Your task to perform on an android device: toggle translation in the chrome app Image 0: 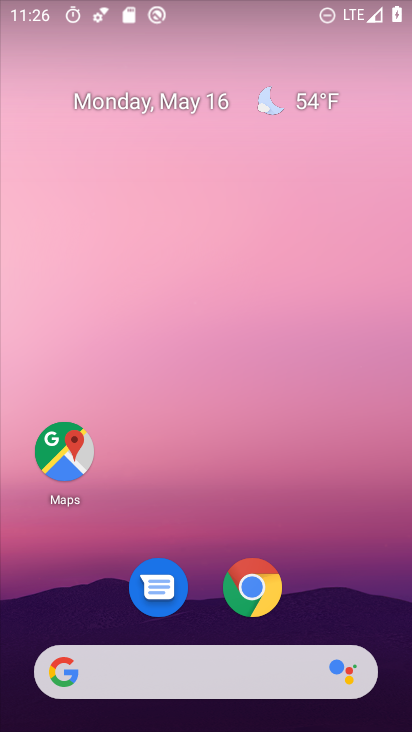
Step 0: drag from (211, 598) to (213, 211)
Your task to perform on an android device: toggle translation in the chrome app Image 1: 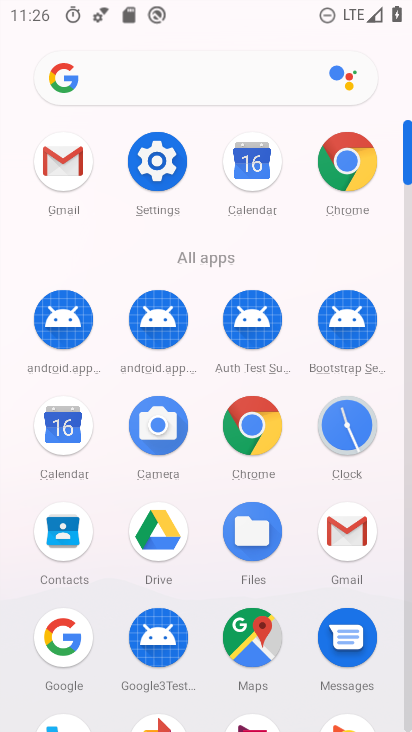
Step 1: click (241, 416)
Your task to perform on an android device: toggle translation in the chrome app Image 2: 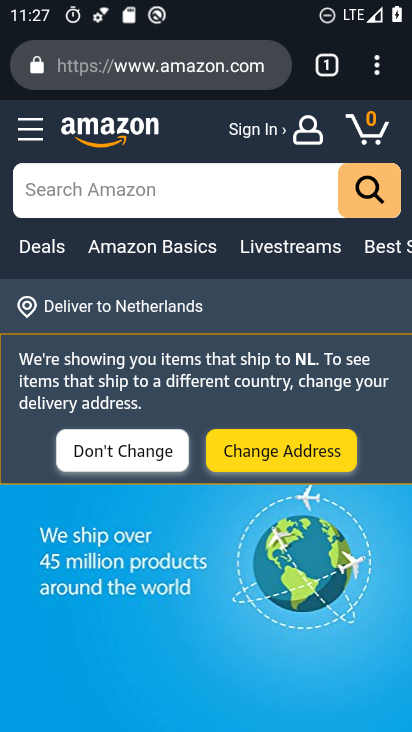
Step 2: drag from (211, 644) to (221, 410)
Your task to perform on an android device: toggle translation in the chrome app Image 3: 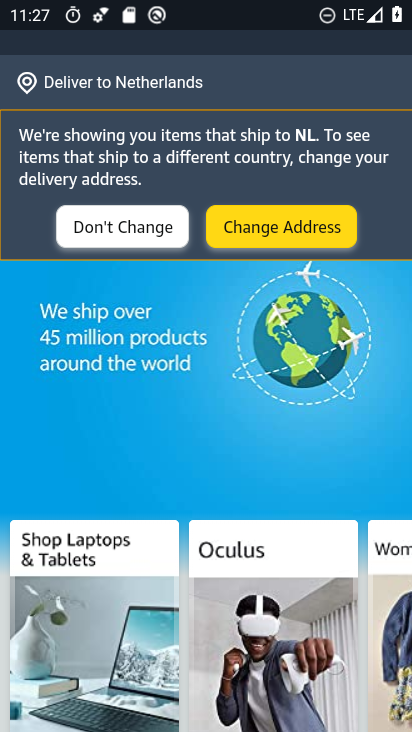
Step 3: drag from (205, 156) to (253, 545)
Your task to perform on an android device: toggle translation in the chrome app Image 4: 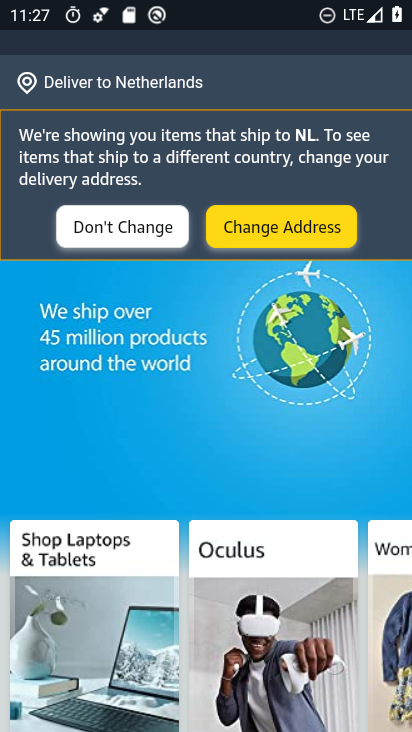
Step 4: drag from (201, 285) to (302, 728)
Your task to perform on an android device: toggle translation in the chrome app Image 5: 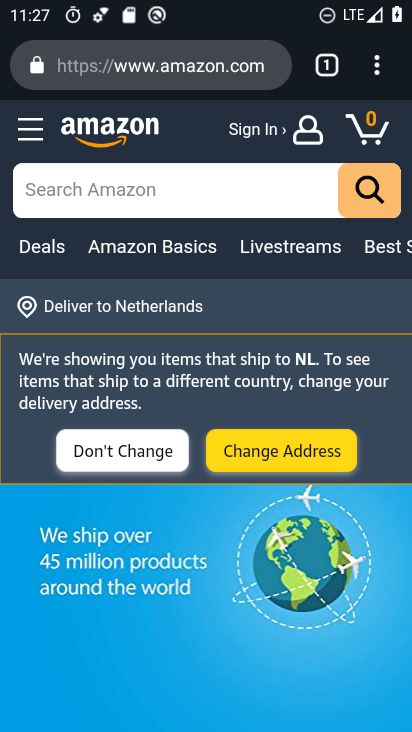
Step 5: drag from (210, 309) to (279, 648)
Your task to perform on an android device: toggle translation in the chrome app Image 6: 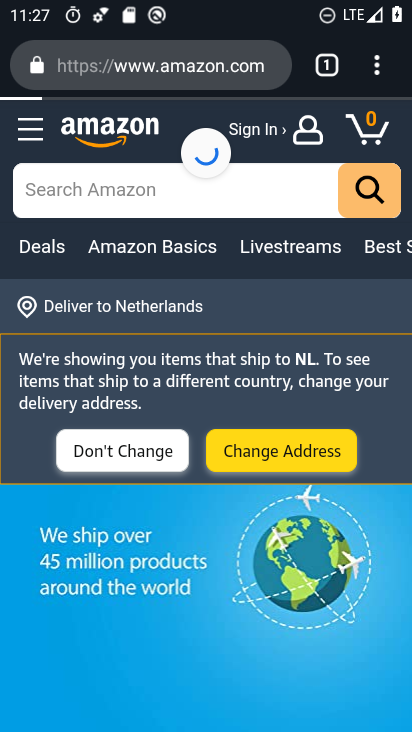
Step 6: drag from (233, 642) to (257, 171)
Your task to perform on an android device: toggle translation in the chrome app Image 7: 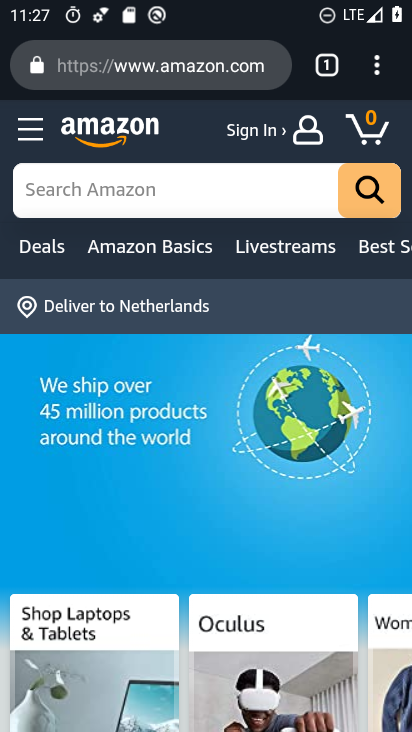
Step 7: drag from (220, 234) to (231, 524)
Your task to perform on an android device: toggle translation in the chrome app Image 8: 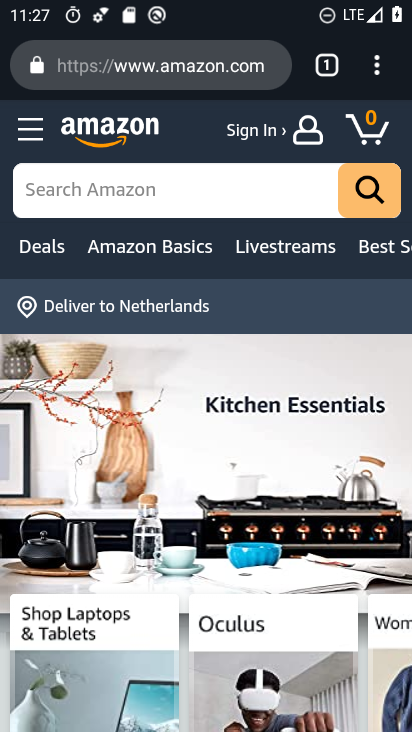
Step 8: click (374, 61)
Your task to perform on an android device: toggle translation in the chrome app Image 9: 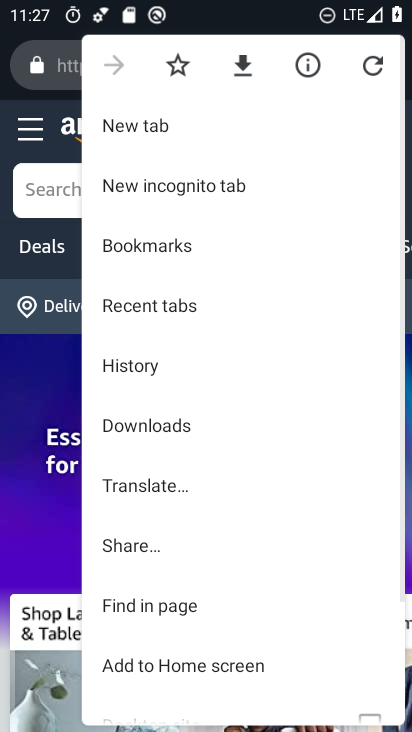
Step 9: drag from (191, 510) to (227, 38)
Your task to perform on an android device: toggle translation in the chrome app Image 10: 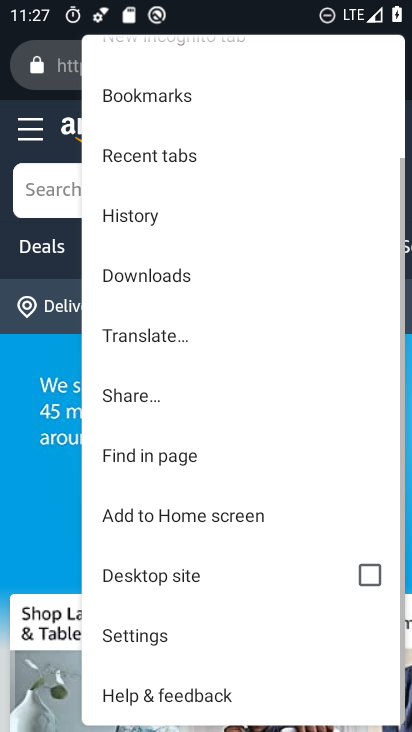
Step 10: click (155, 626)
Your task to perform on an android device: toggle translation in the chrome app Image 11: 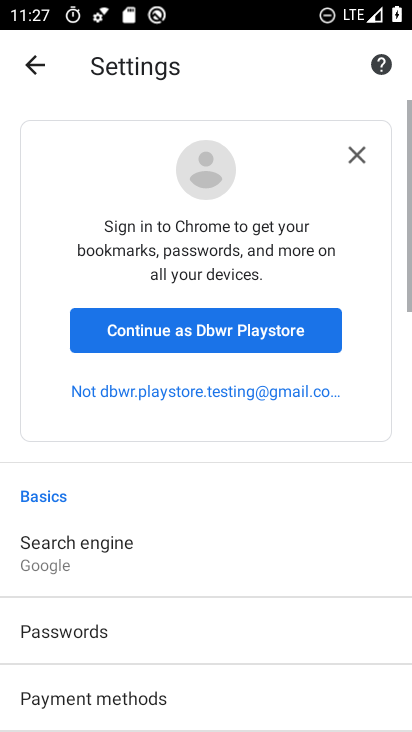
Step 11: drag from (193, 564) to (262, 150)
Your task to perform on an android device: toggle translation in the chrome app Image 12: 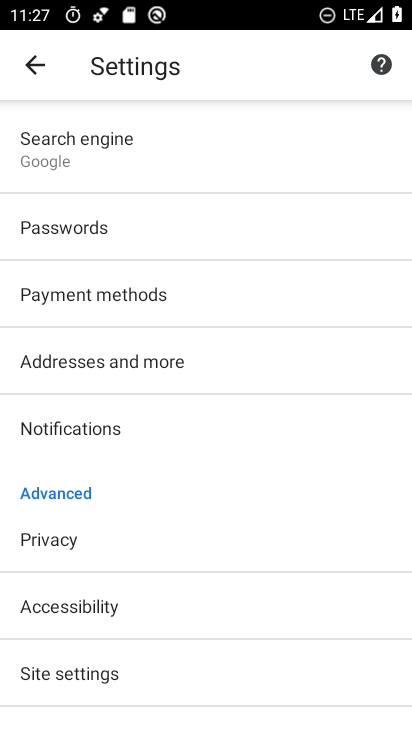
Step 12: drag from (190, 636) to (232, 241)
Your task to perform on an android device: toggle translation in the chrome app Image 13: 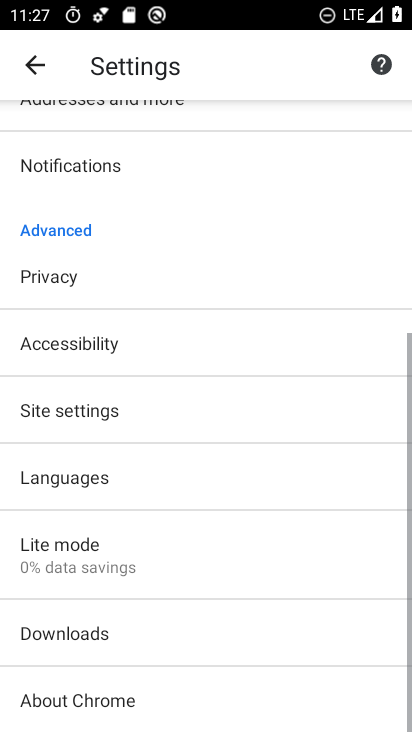
Step 13: drag from (219, 663) to (236, 207)
Your task to perform on an android device: toggle translation in the chrome app Image 14: 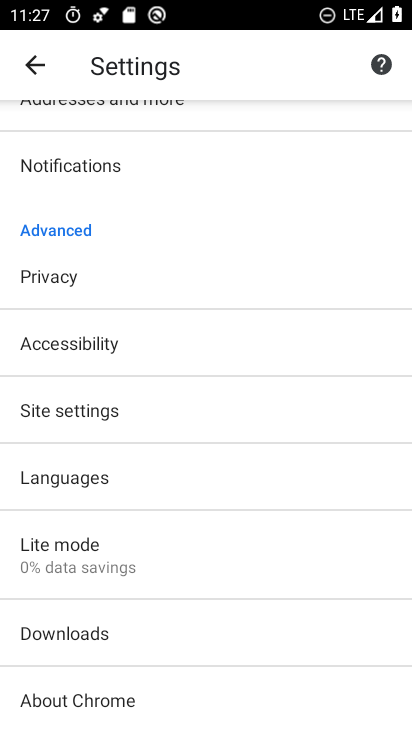
Step 14: drag from (205, 650) to (225, 240)
Your task to perform on an android device: toggle translation in the chrome app Image 15: 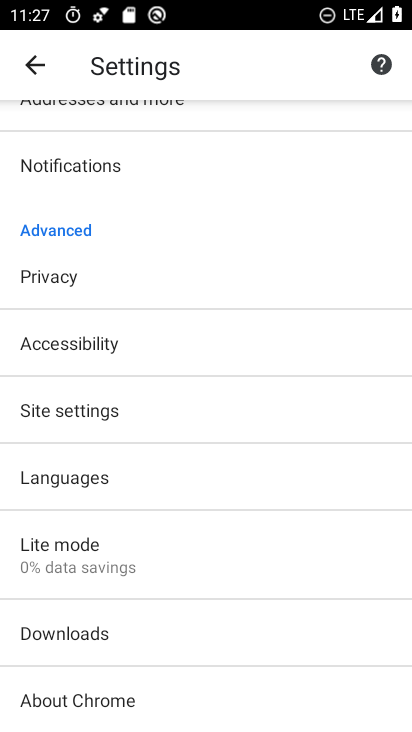
Step 15: drag from (175, 634) to (218, 288)
Your task to perform on an android device: toggle translation in the chrome app Image 16: 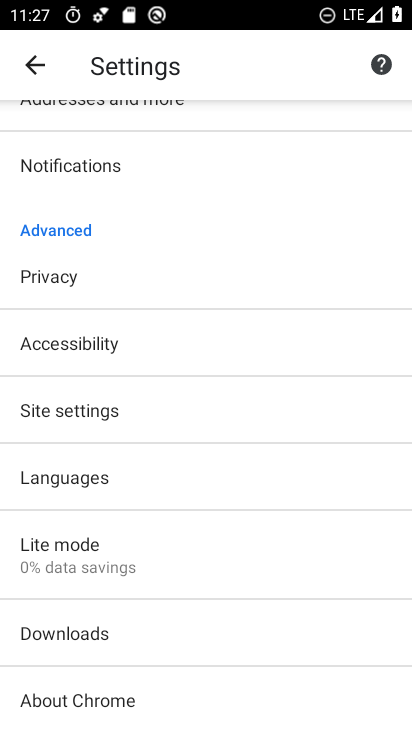
Step 16: click (100, 427)
Your task to perform on an android device: toggle translation in the chrome app Image 17: 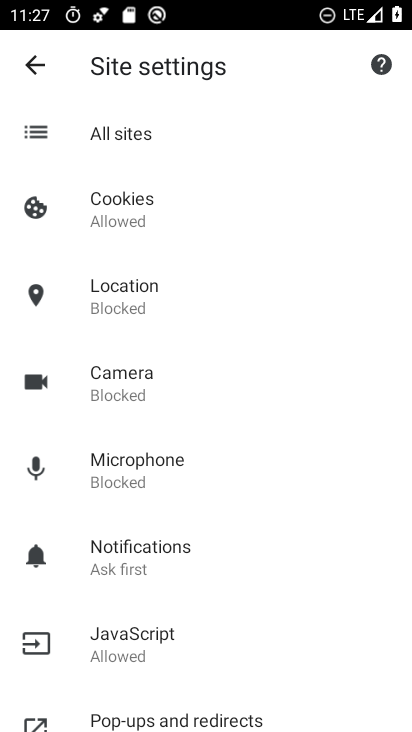
Step 17: click (36, 62)
Your task to perform on an android device: toggle translation in the chrome app Image 18: 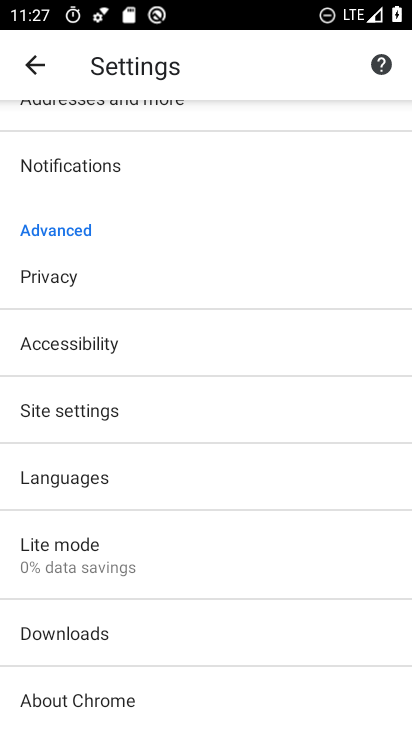
Step 18: click (129, 550)
Your task to perform on an android device: toggle translation in the chrome app Image 19: 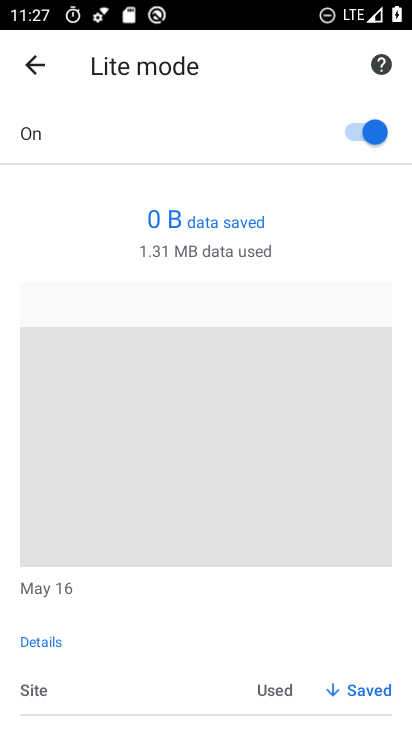
Step 19: click (359, 141)
Your task to perform on an android device: toggle translation in the chrome app Image 20: 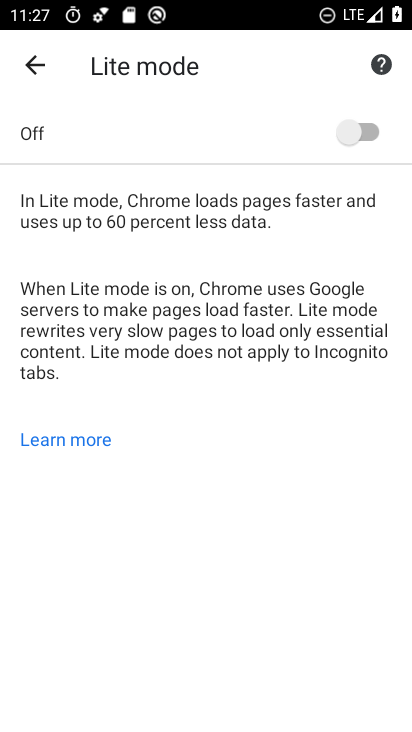
Step 20: task complete